Your task to perform on an android device: Open wifi settings Image 0: 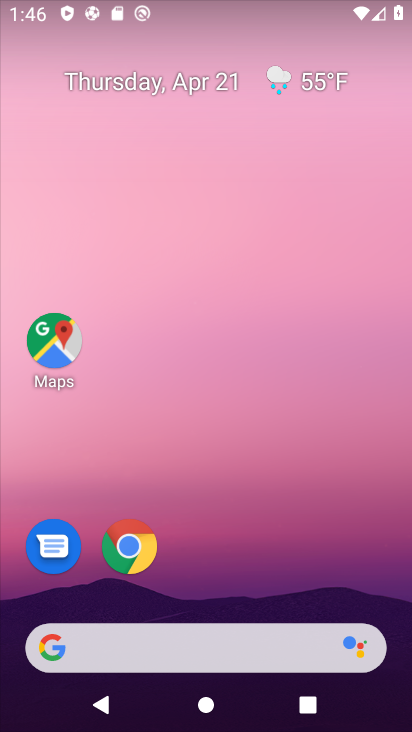
Step 0: drag from (178, 16) to (240, 594)
Your task to perform on an android device: Open wifi settings Image 1: 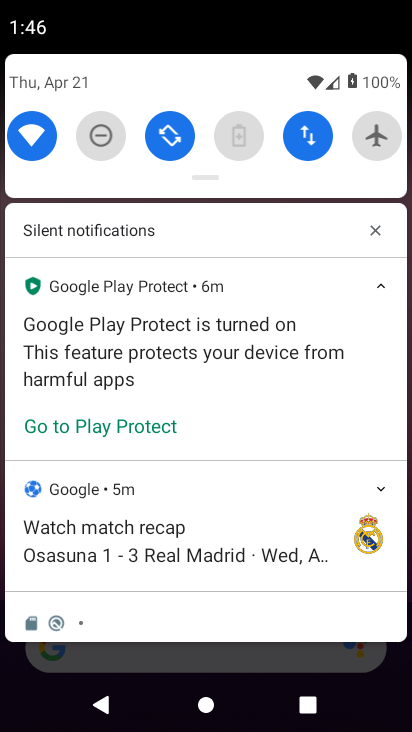
Step 1: click (39, 149)
Your task to perform on an android device: Open wifi settings Image 2: 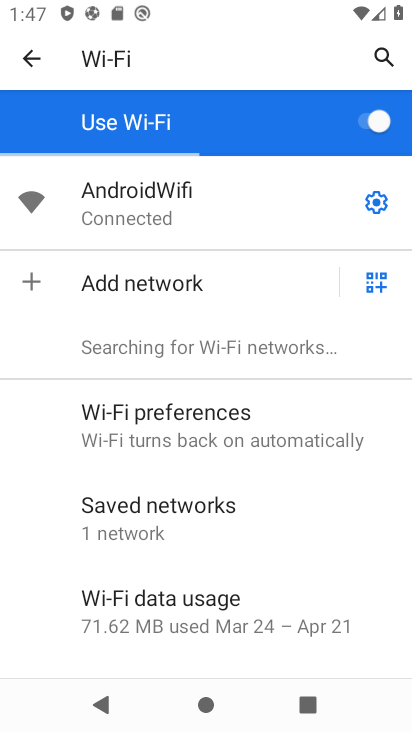
Step 2: task complete